Your task to perform on an android device: change the upload size in google photos Image 0: 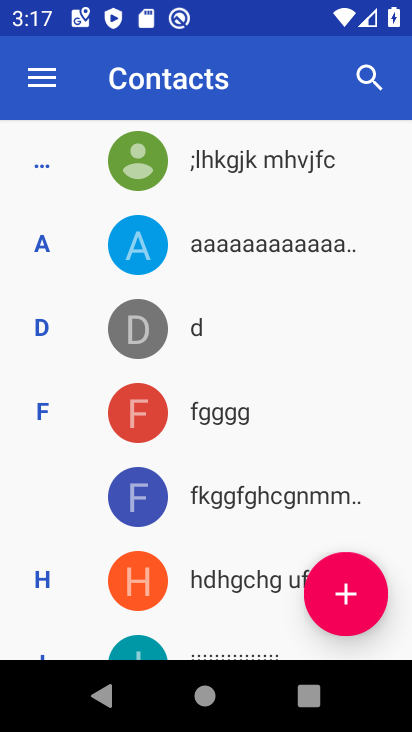
Step 0: press back button
Your task to perform on an android device: change the upload size in google photos Image 1: 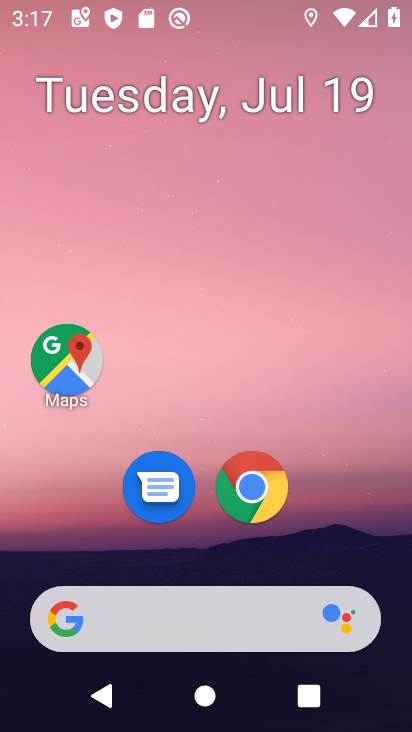
Step 1: drag from (233, 538) to (268, 8)
Your task to perform on an android device: change the upload size in google photos Image 2: 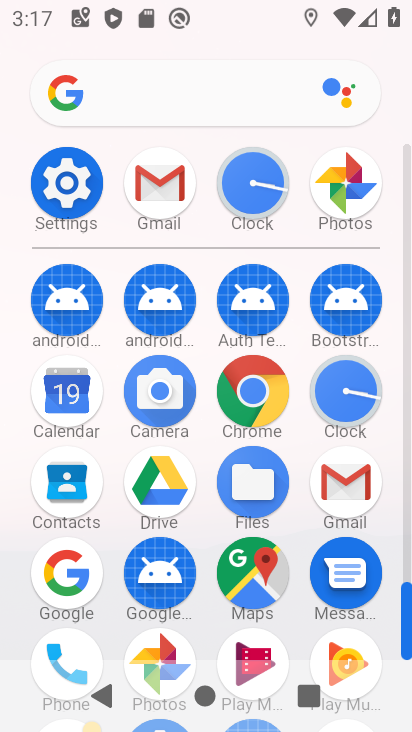
Step 2: click (158, 642)
Your task to perform on an android device: change the upload size in google photos Image 3: 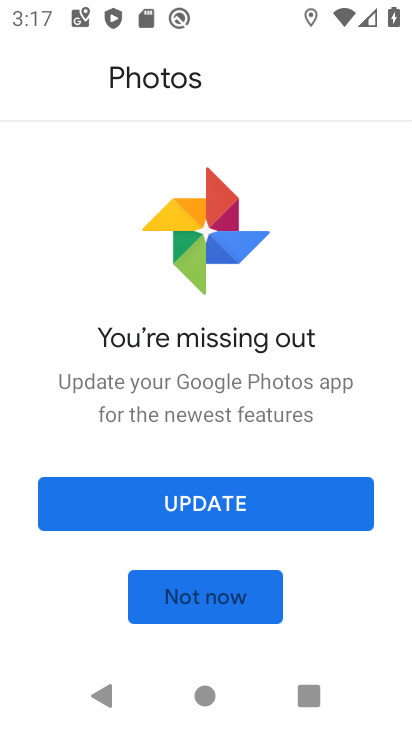
Step 3: click (239, 441)
Your task to perform on an android device: change the upload size in google photos Image 4: 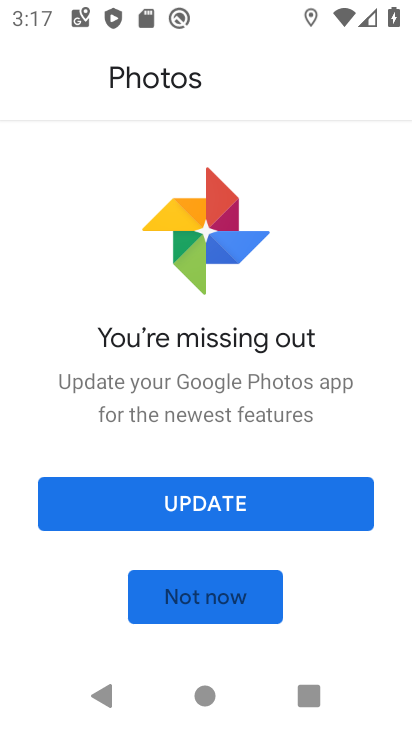
Step 4: click (177, 597)
Your task to perform on an android device: change the upload size in google photos Image 5: 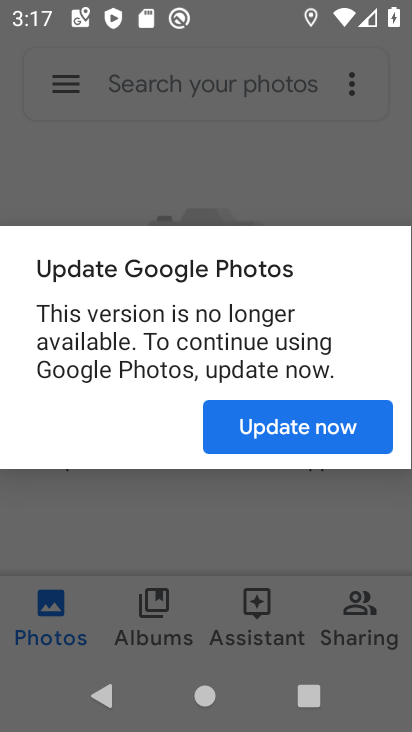
Step 5: click (250, 432)
Your task to perform on an android device: change the upload size in google photos Image 6: 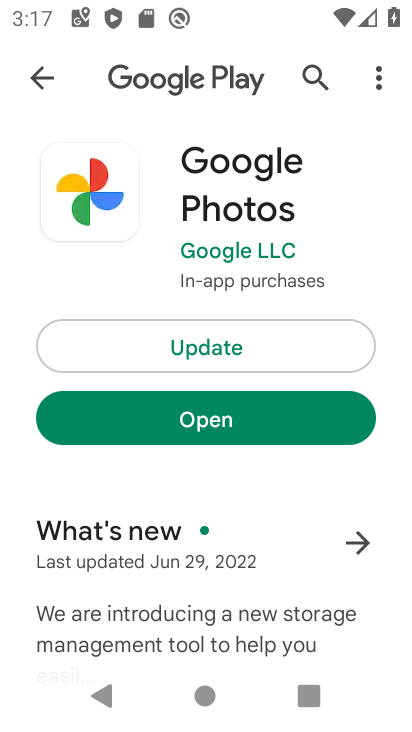
Step 6: click (190, 426)
Your task to perform on an android device: change the upload size in google photos Image 7: 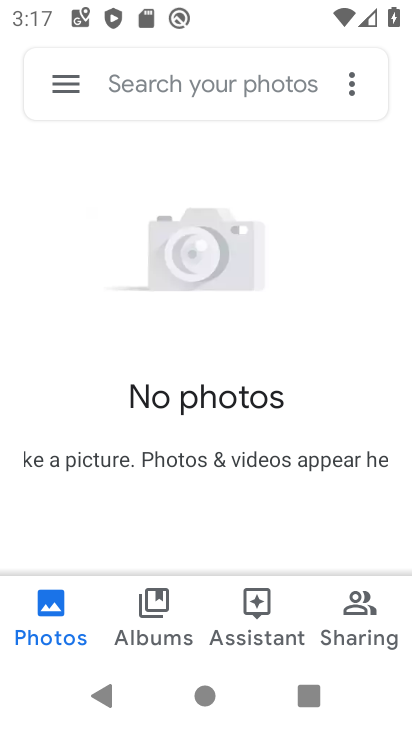
Step 7: click (73, 82)
Your task to perform on an android device: change the upload size in google photos Image 8: 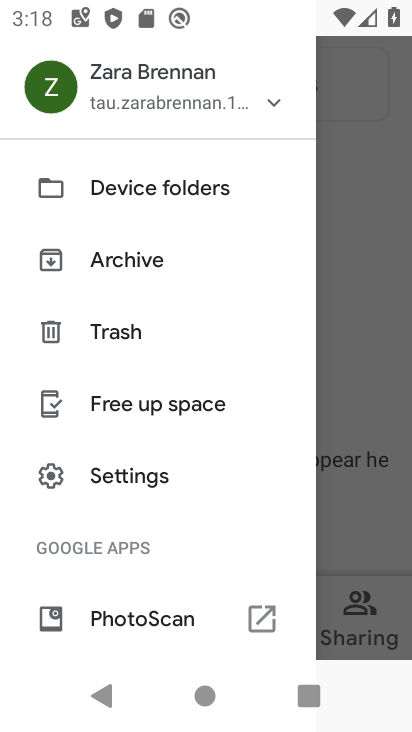
Step 8: click (120, 469)
Your task to perform on an android device: change the upload size in google photos Image 9: 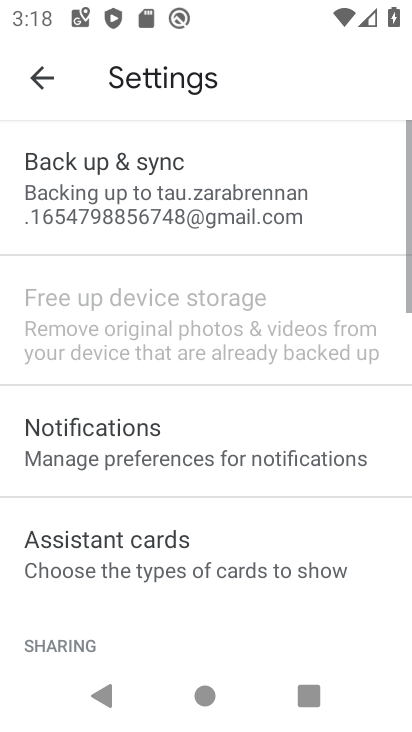
Step 9: click (129, 197)
Your task to perform on an android device: change the upload size in google photos Image 10: 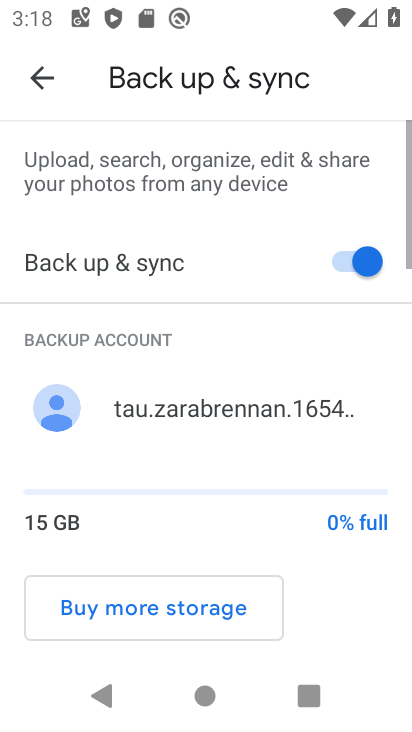
Step 10: drag from (151, 518) to (261, 15)
Your task to perform on an android device: change the upload size in google photos Image 11: 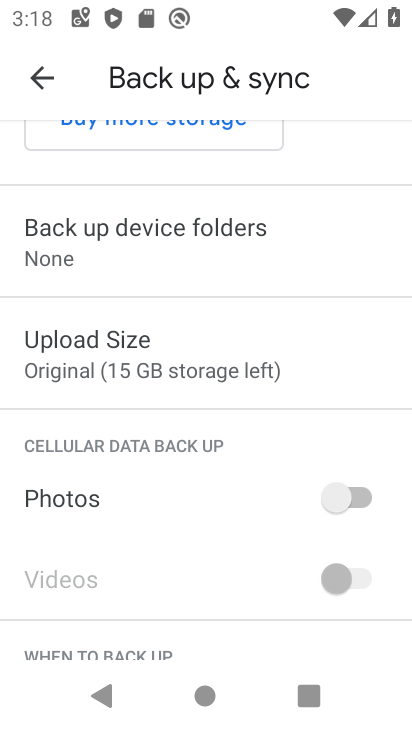
Step 11: click (138, 348)
Your task to perform on an android device: change the upload size in google photos Image 12: 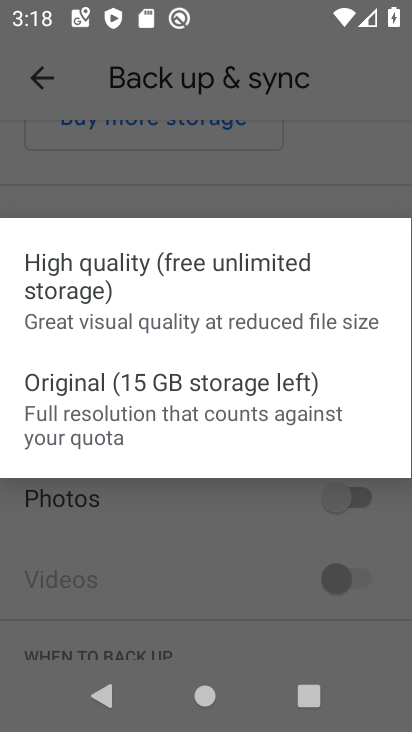
Step 12: click (107, 291)
Your task to perform on an android device: change the upload size in google photos Image 13: 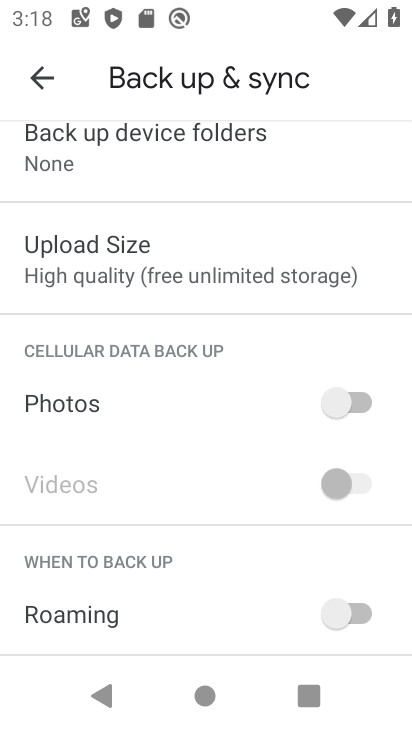
Step 13: task complete